Your task to perform on an android device: Set the phone to "Do not disturb". Image 0: 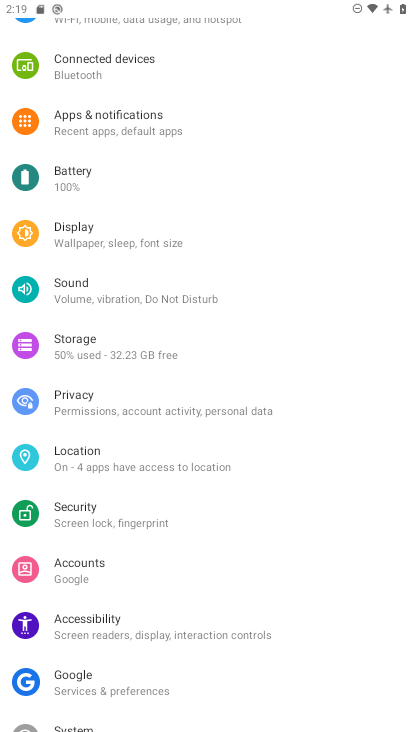
Step 0: press home button
Your task to perform on an android device: Set the phone to "Do not disturb". Image 1: 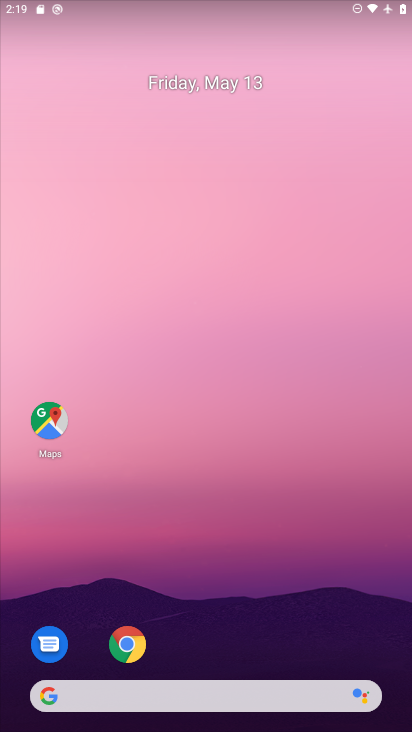
Step 1: task complete